Your task to perform on an android device: Open Yahoo.com Image 0: 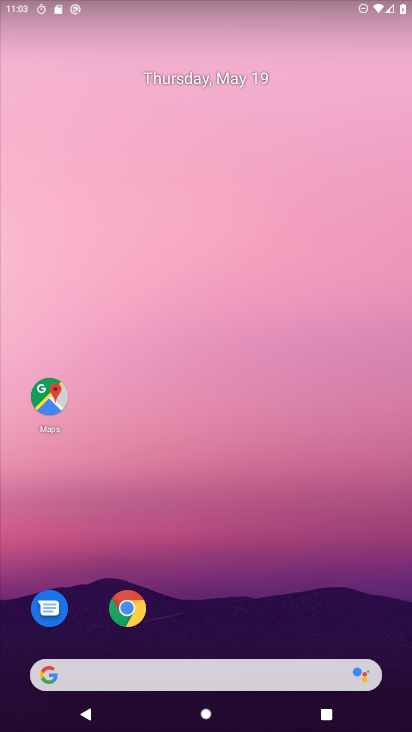
Step 0: click (132, 608)
Your task to perform on an android device: Open Yahoo.com Image 1: 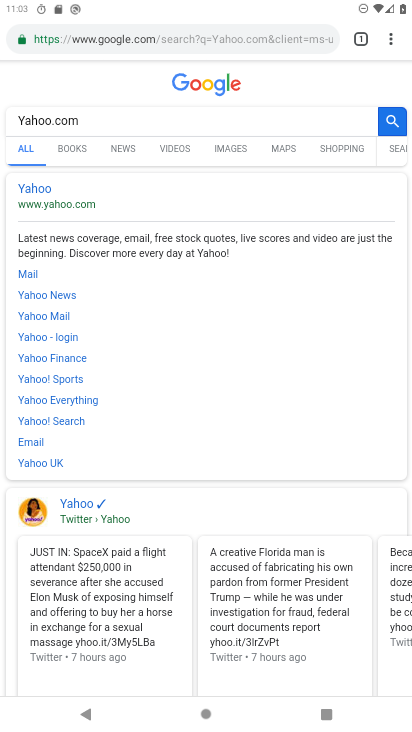
Step 1: task complete